Your task to perform on an android device: Go to accessibility settings Image 0: 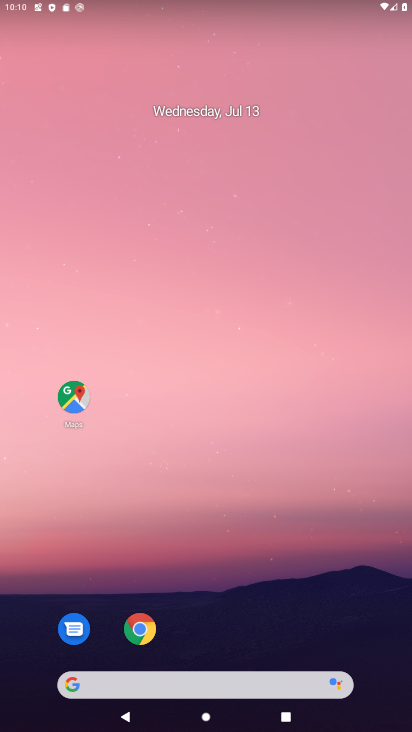
Step 0: drag from (220, 648) to (225, 2)
Your task to perform on an android device: Go to accessibility settings Image 1: 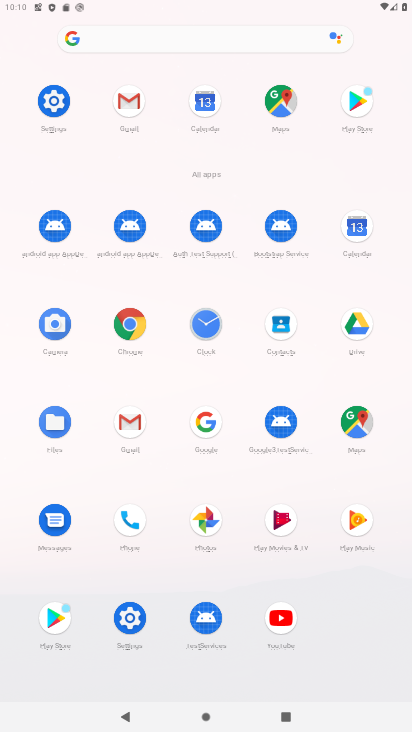
Step 1: click (57, 100)
Your task to perform on an android device: Go to accessibility settings Image 2: 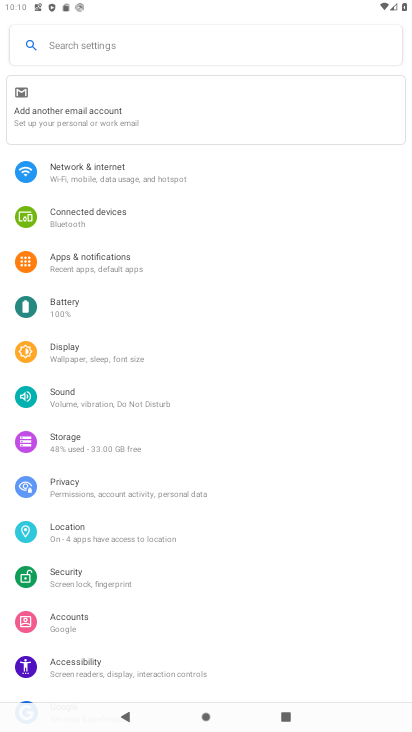
Step 2: drag from (197, 631) to (215, 203)
Your task to perform on an android device: Go to accessibility settings Image 3: 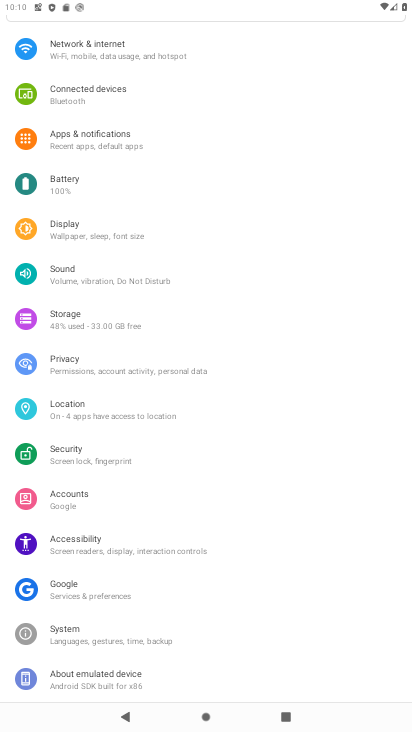
Step 3: click (106, 538)
Your task to perform on an android device: Go to accessibility settings Image 4: 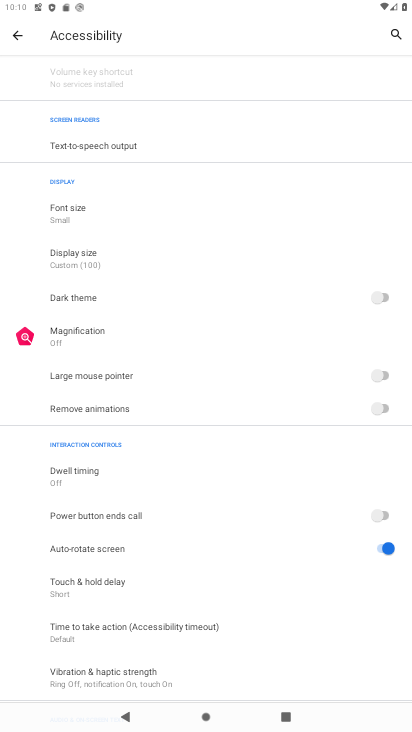
Step 4: task complete